Your task to perform on an android device: search for starred emails in the gmail app Image 0: 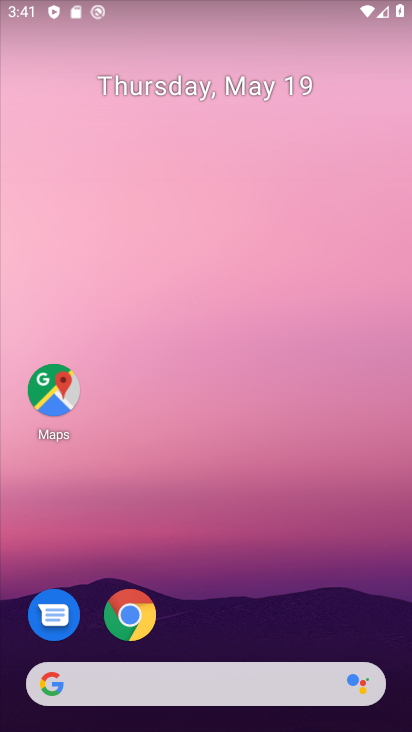
Step 0: drag from (305, 646) to (285, 4)
Your task to perform on an android device: search for starred emails in the gmail app Image 1: 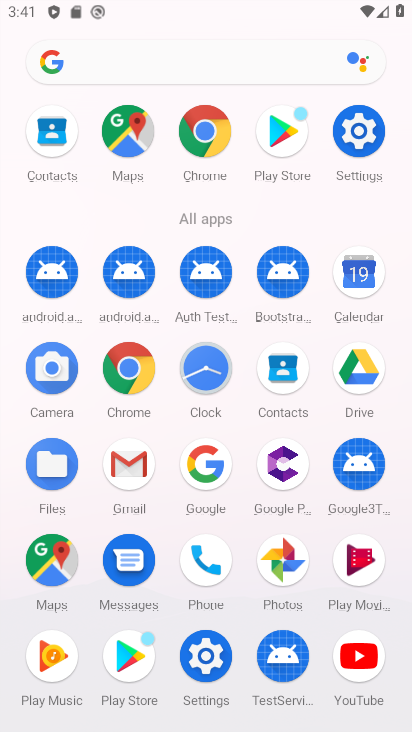
Step 1: click (128, 472)
Your task to perform on an android device: search for starred emails in the gmail app Image 2: 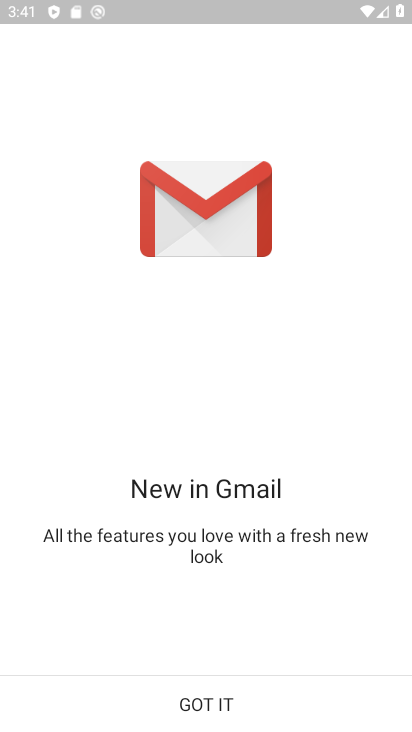
Step 2: click (199, 696)
Your task to perform on an android device: search for starred emails in the gmail app Image 3: 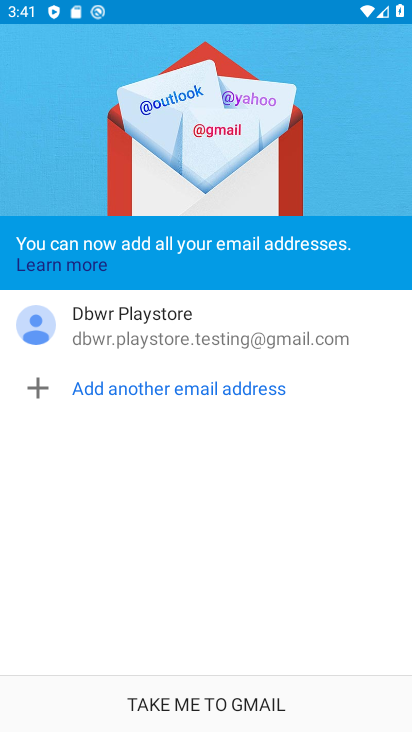
Step 3: click (199, 696)
Your task to perform on an android device: search for starred emails in the gmail app Image 4: 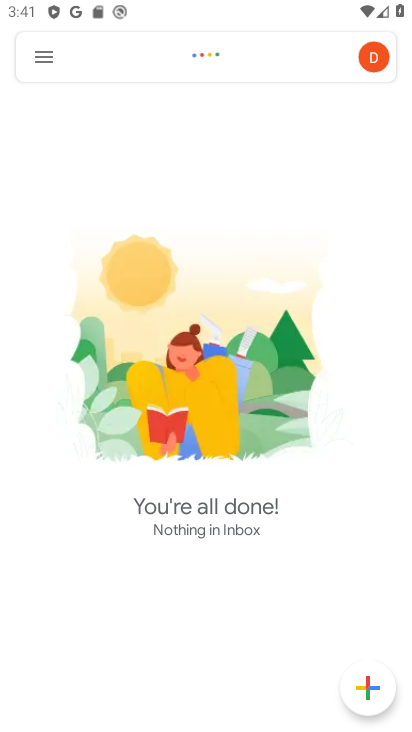
Step 4: click (38, 57)
Your task to perform on an android device: search for starred emails in the gmail app Image 5: 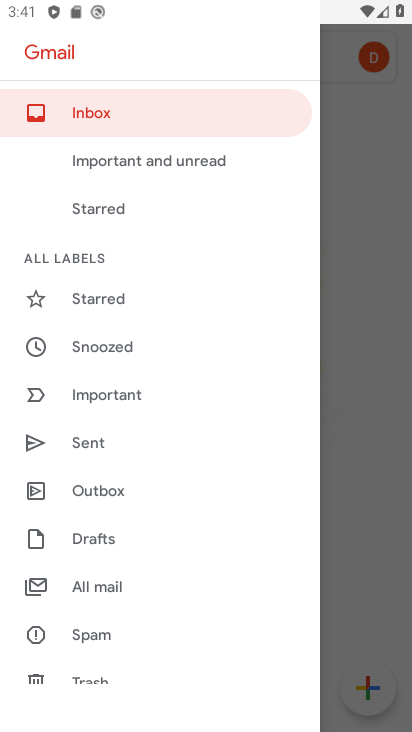
Step 5: click (102, 302)
Your task to perform on an android device: search for starred emails in the gmail app Image 6: 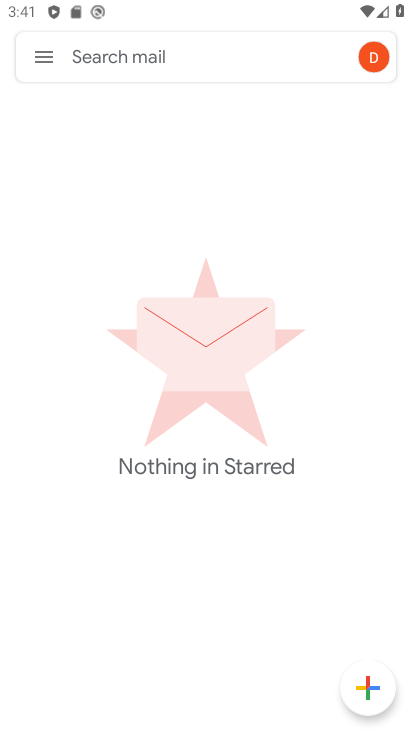
Step 6: task complete